Your task to perform on an android device: turn off smart reply in the gmail app Image 0: 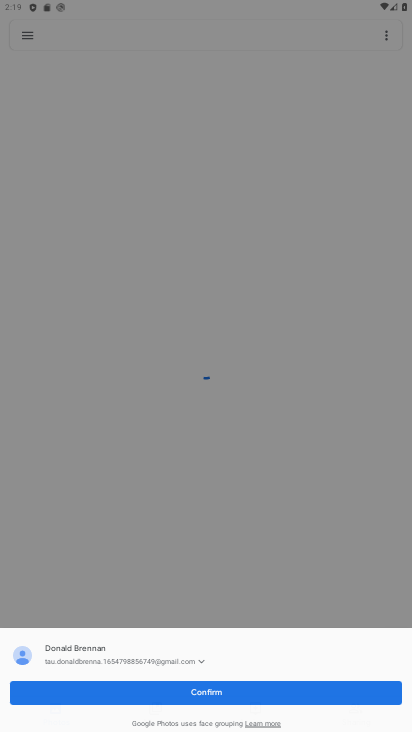
Step 0: press home button
Your task to perform on an android device: turn off smart reply in the gmail app Image 1: 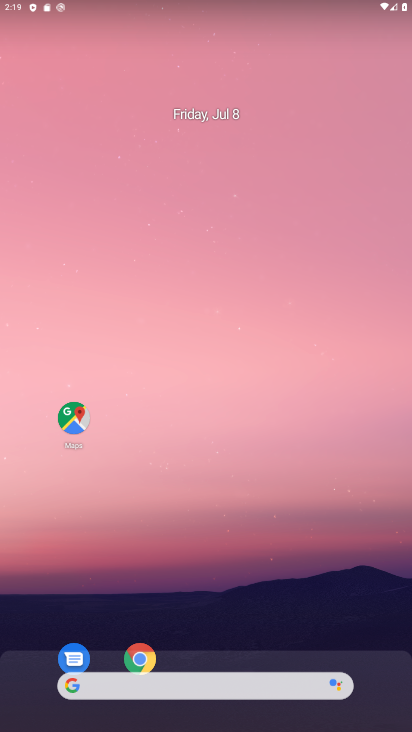
Step 1: press home button
Your task to perform on an android device: turn off smart reply in the gmail app Image 2: 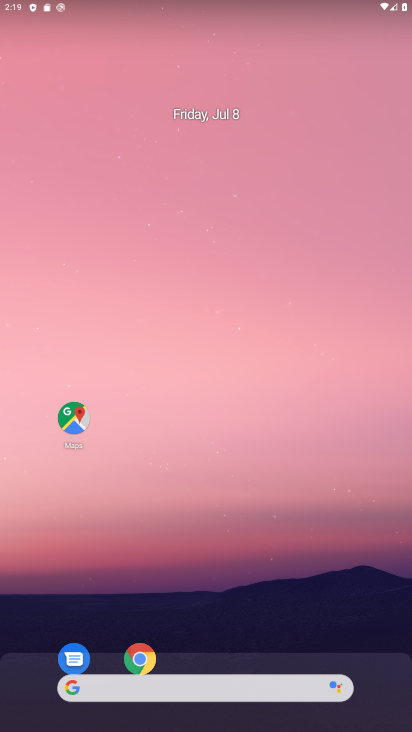
Step 2: drag from (217, 656) to (242, 5)
Your task to perform on an android device: turn off smart reply in the gmail app Image 3: 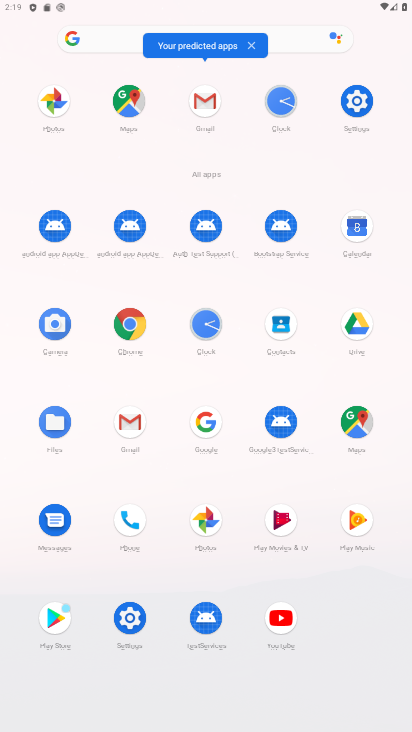
Step 3: click (201, 99)
Your task to perform on an android device: turn off smart reply in the gmail app Image 4: 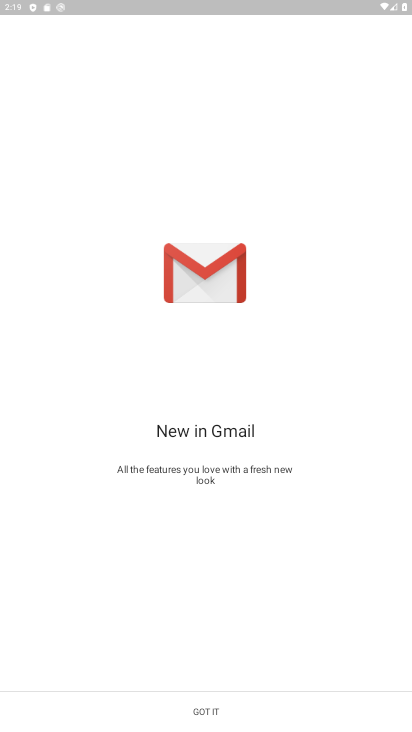
Step 4: click (208, 715)
Your task to perform on an android device: turn off smart reply in the gmail app Image 5: 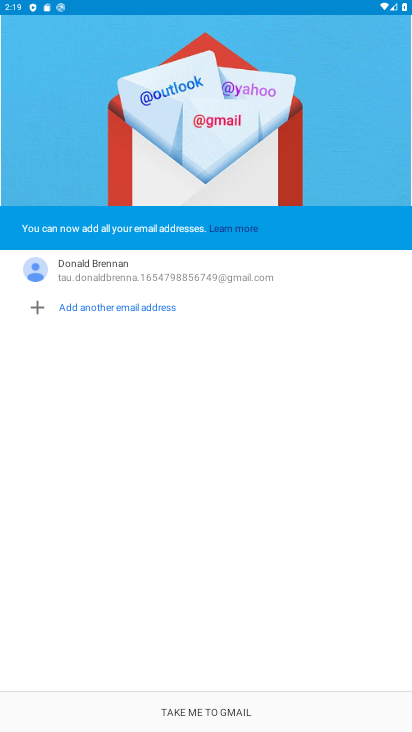
Step 5: click (210, 711)
Your task to perform on an android device: turn off smart reply in the gmail app Image 6: 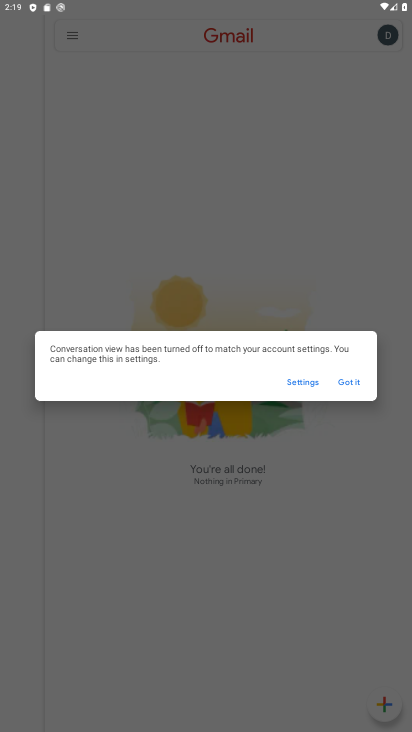
Step 6: click (350, 382)
Your task to perform on an android device: turn off smart reply in the gmail app Image 7: 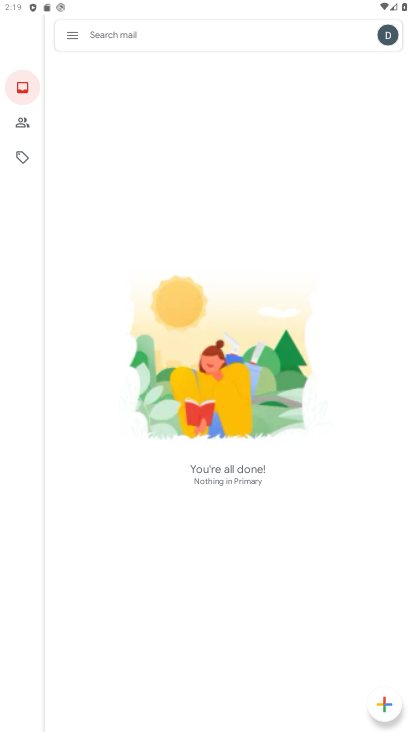
Step 7: click (72, 34)
Your task to perform on an android device: turn off smart reply in the gmail app Image 8: 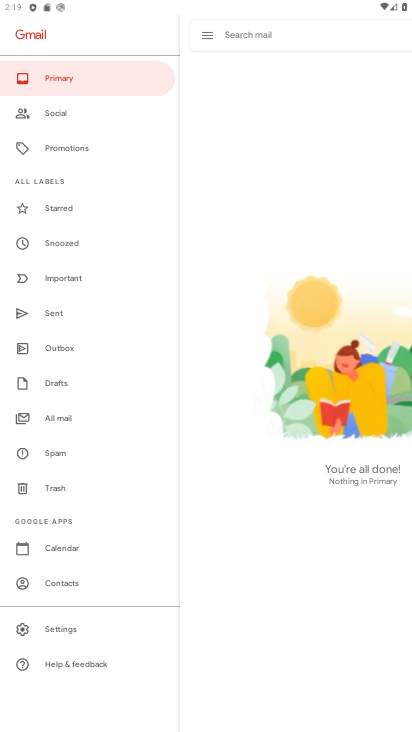
Step 8: click (71, 628)
Your task to perform on an android device: turn off smart reply in the gmail app Image 9: 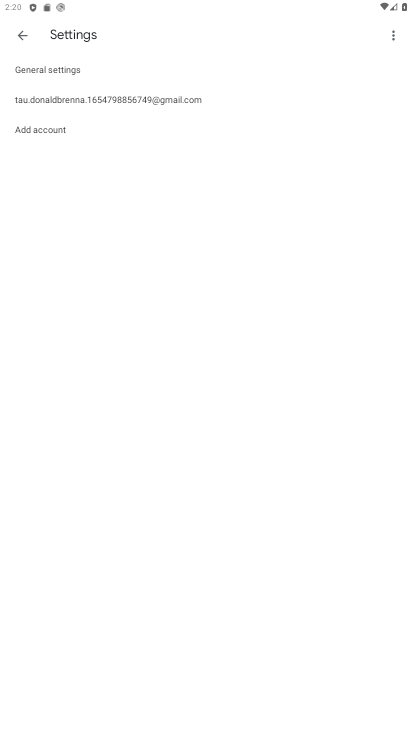
Step 9: click (145, 105)
Your task to perform on an android device: turn off smart reply in the gmail app Image 10: 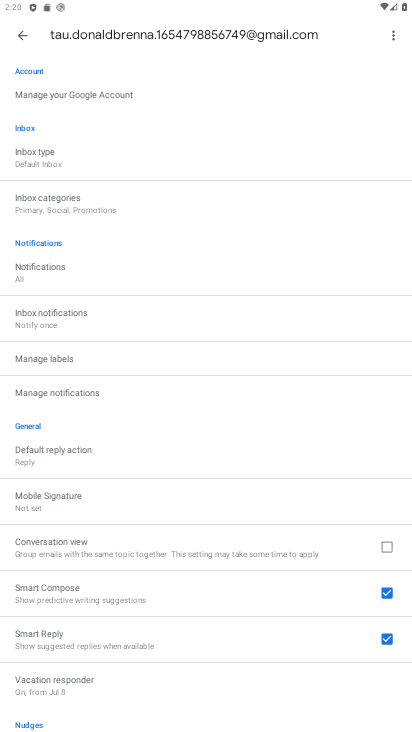
Step 10: click (388, 635)
Your task to perform on an android device: turn off smart reply in the gmail app Image 11: 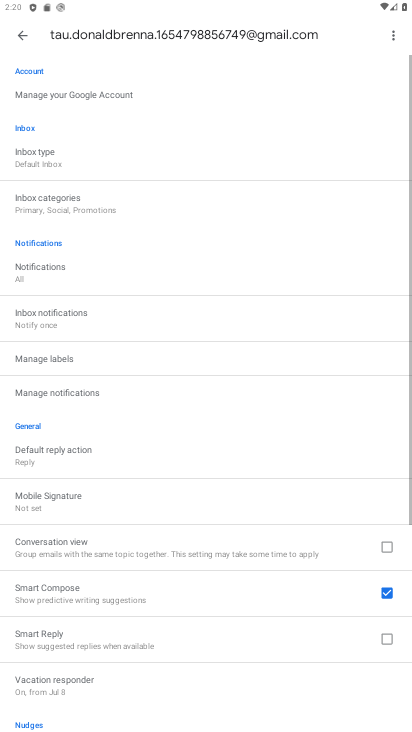
Step 11: task complete